Your task to perform on an android device: Go to Wikipedia Image 0: 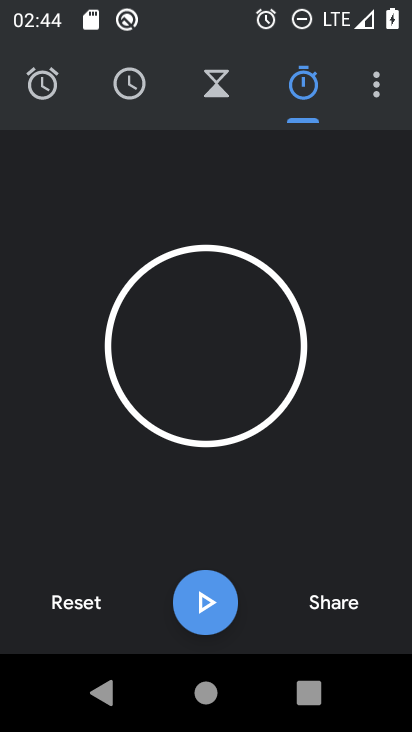
Step 0: press home button
Your task to perform on an android device: Go to Wikipedia Image 1: 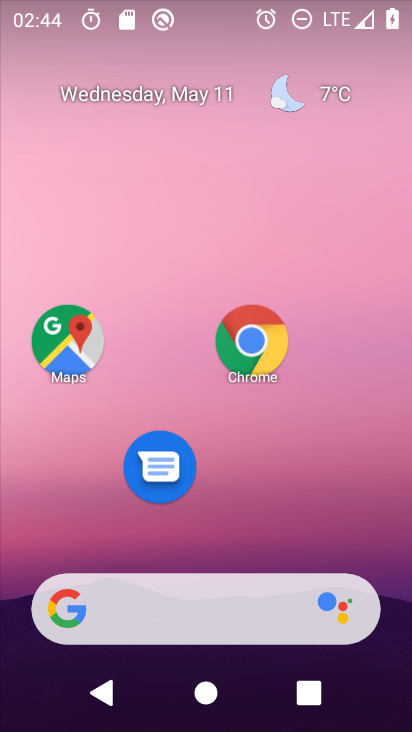
Step 1: click (257, 342)
Your task to perform on an android device: Go to Wikipedia Image 2: 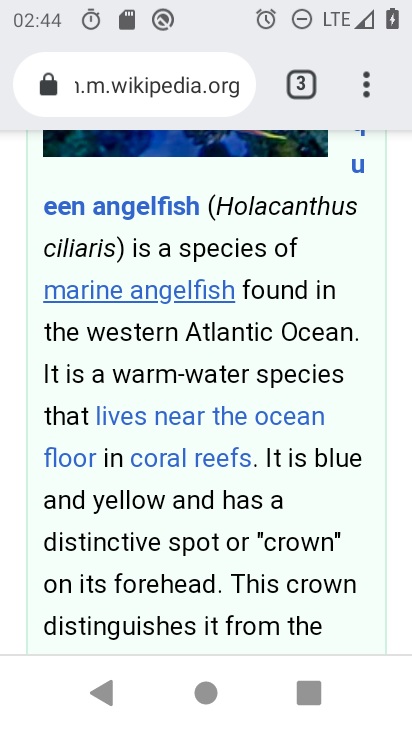
Step 2: click (367, 87)
Your task to perform on an android device: Go to Wikipedia Image 3: 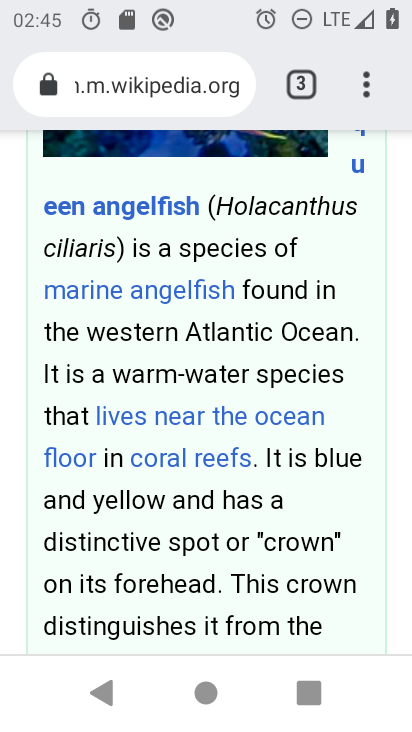
Step 3: task complete